Your task to perform on an android device: What's on my calendar tomorrow? Image 0: 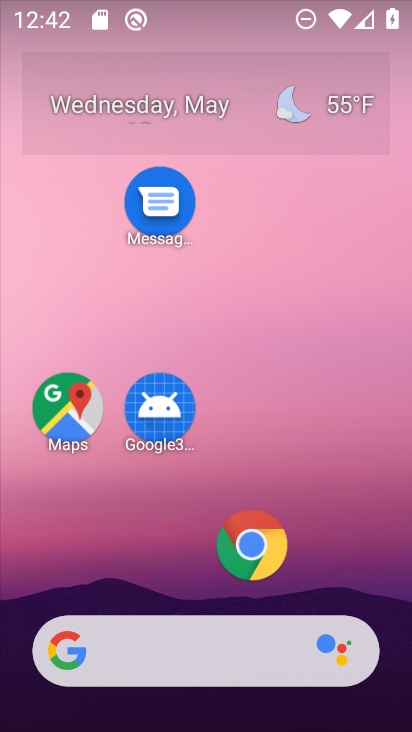
Step 0: drag from (178, 572) to (197, 234)
Your task to perform on an android device: What's on my calendar tomorrow? Image 1: 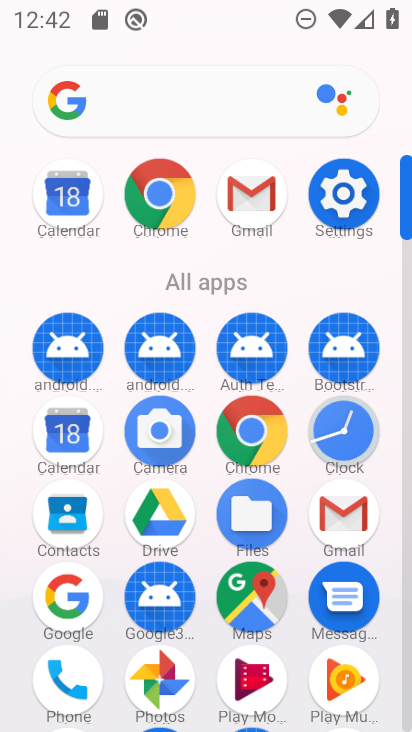
Step 1: click (72, 438)
Your task to perform on an android device: What's on my calendar tomorrow? Image 2: 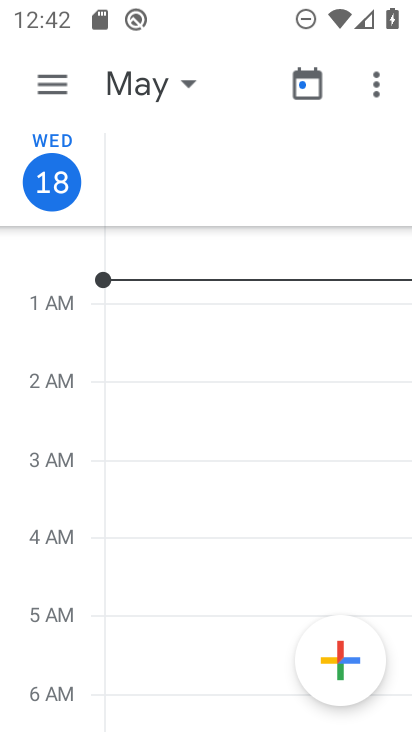
Step 2: click (61, 91)
Your task to perform on an android device: What's on my calendar tomorrow? Image 3: 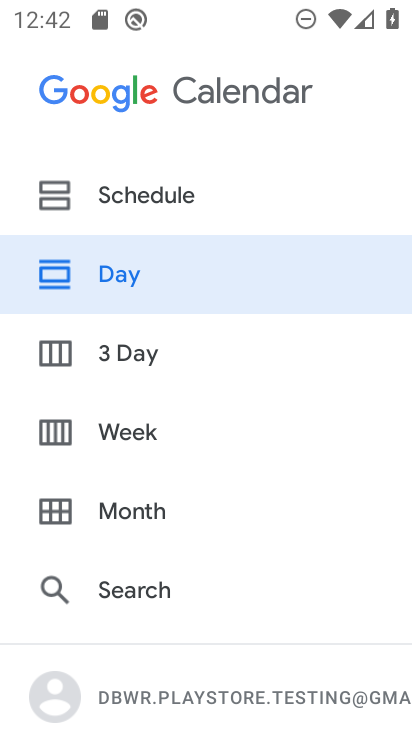
Step 3: click (157, 356)
Your task to perform on an android device: What's on my calendar tomorrow? Image 4: 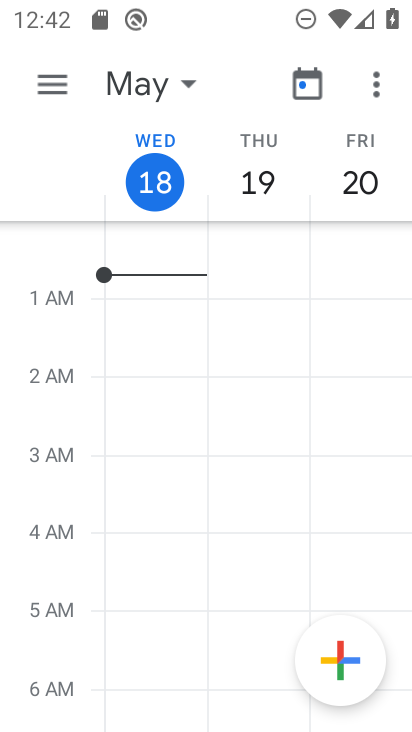
Step 4: task complete